Your task to perform on an android device: Toggle the flashlight Image 0: 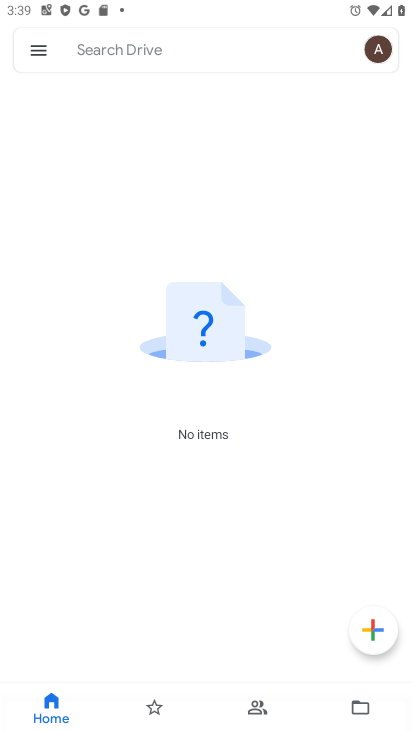
Step 0: press home button
Your task to perform on an android device: Toggle the flashlight Image 1: 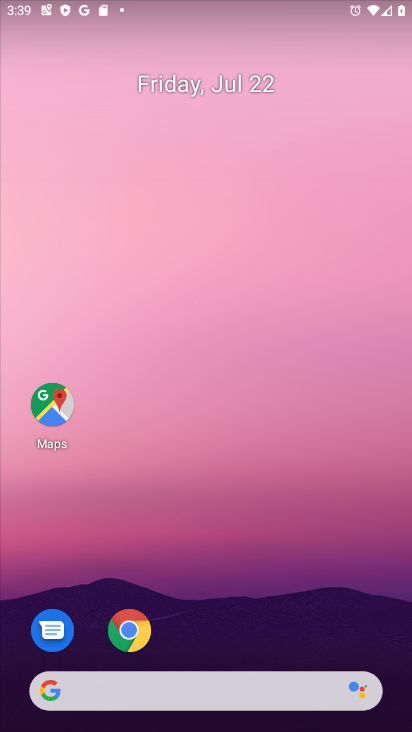
Step 1: task complete